Your task to perform on an android device: Open Reddit.com Image 0: 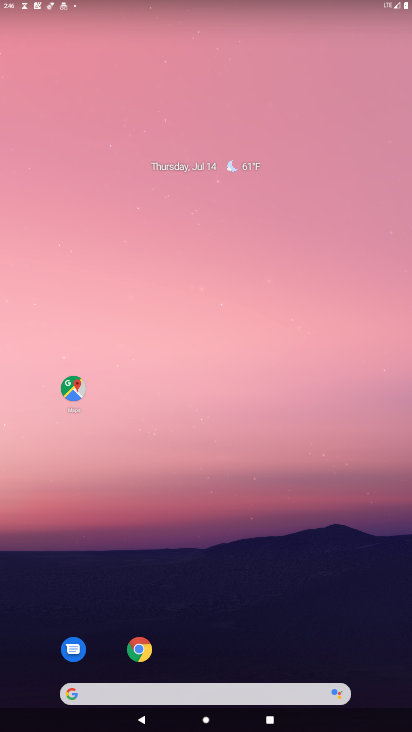
Step 0: drag from (218, 683) to (302, 59)
Your task to perform on an android device: Open Reddit.com Image 1: 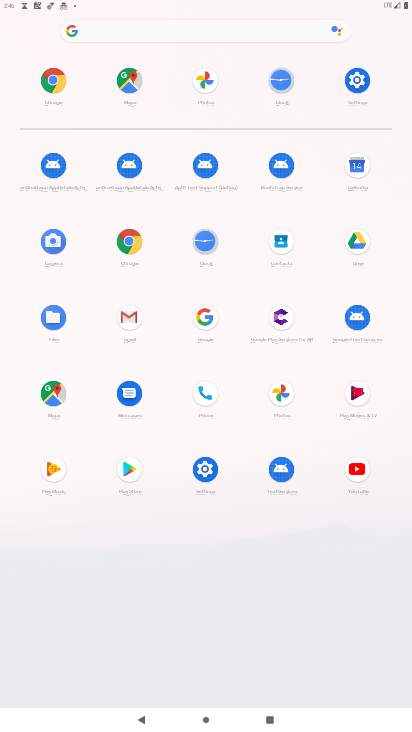
Step 1: click (118, 240)
Your task to perform on an android device: Open Reddit.com Image 2: 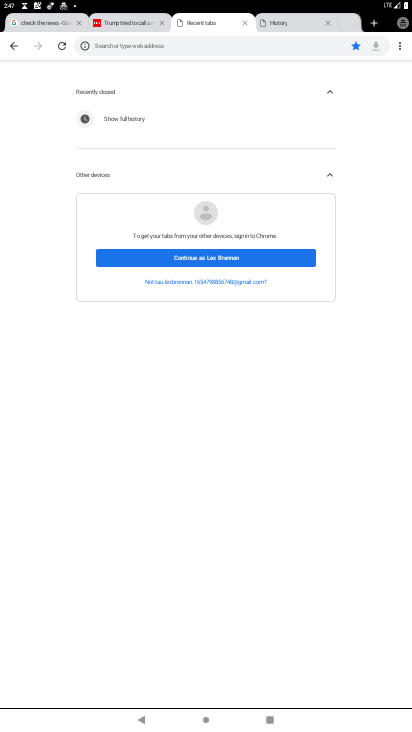
Step 2: click (168, 39)
Your task to perform on an android device: Open Reddit.com Image 3: 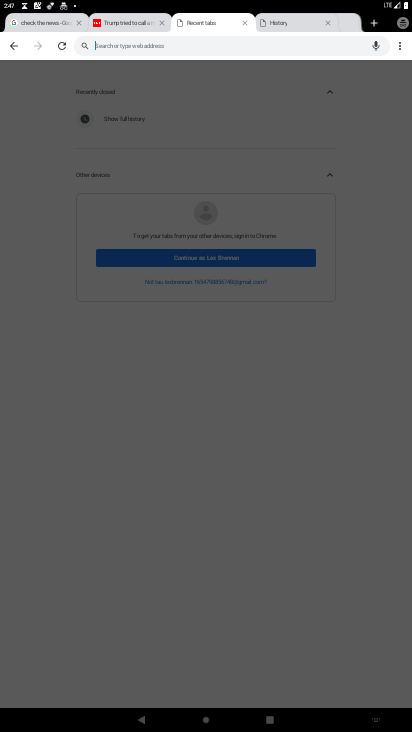
Step 3: type "reddit.com"
Your task to perform on an android device: Open Reddit.com Image 4: 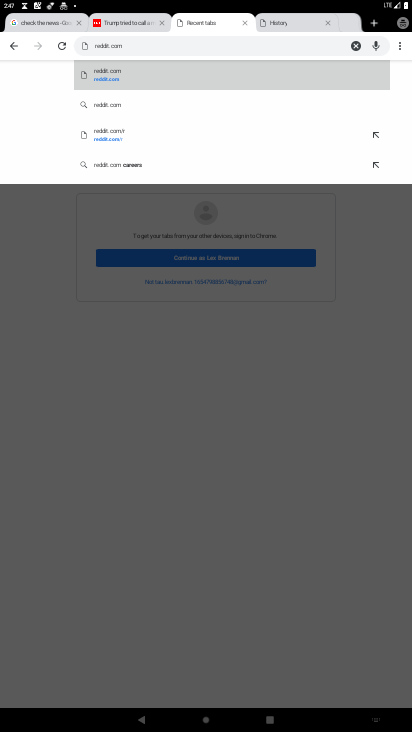
Step 4: click (164, 74)
Your task to perform on an android device: Open Reddit.com Image 5: 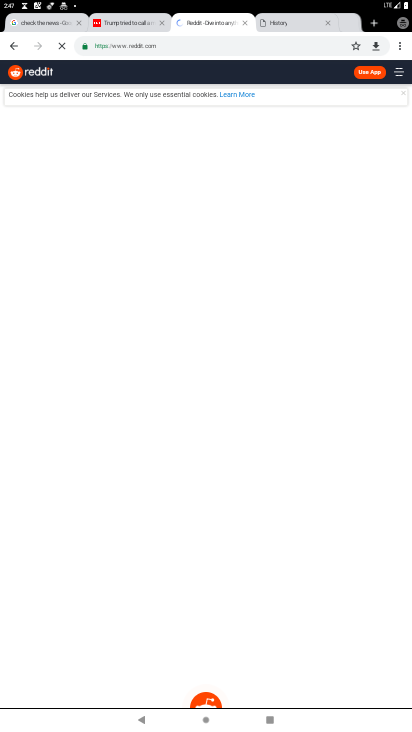
Step 5: task complete